Your task to perform on an android device: make emails show in primary in the gmail app Image 0: 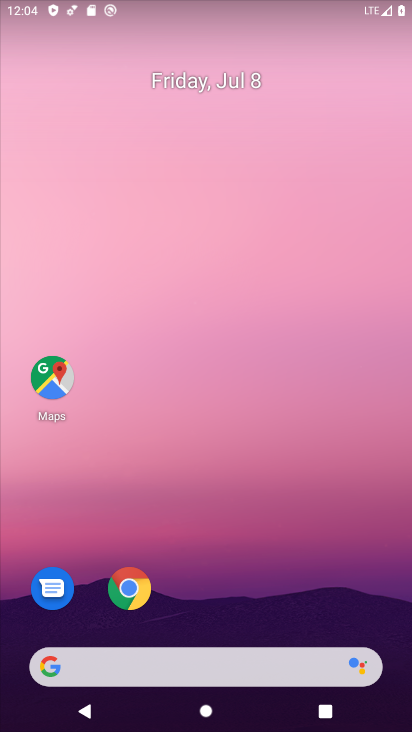
Step 0: press home button
Your task to perform on an android device: make emails show in primary in the gmail app Image 1: 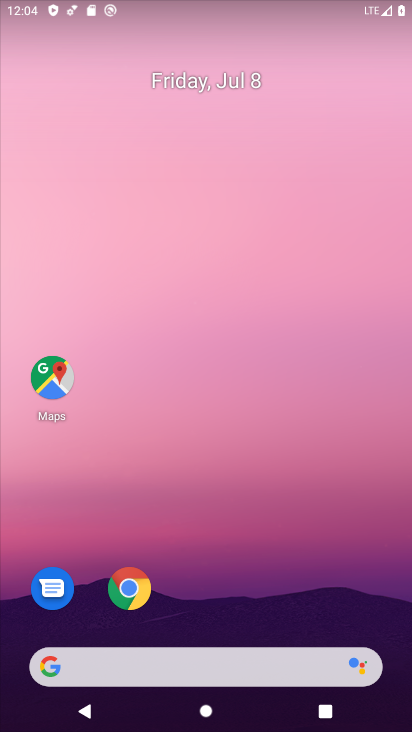
Step 1: drag from (204, 632) to (262, 127)
Your task to perform on an android device: make emails show in primary in the gmail app Image 2: 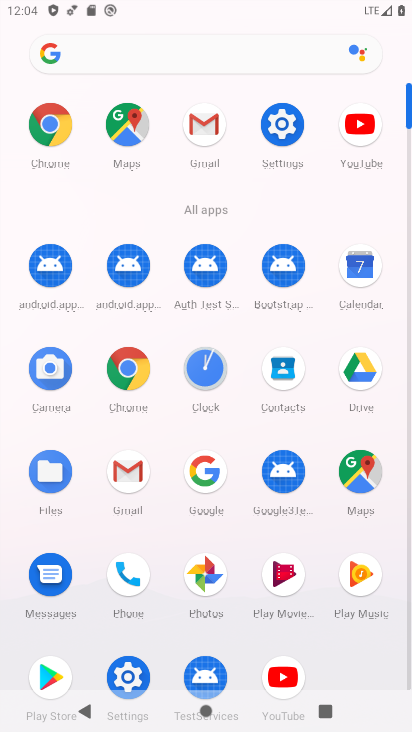
Step 2: click (125, 466)
Your task to perform on an android device: make emails show in primary in the gmail app Image 3: 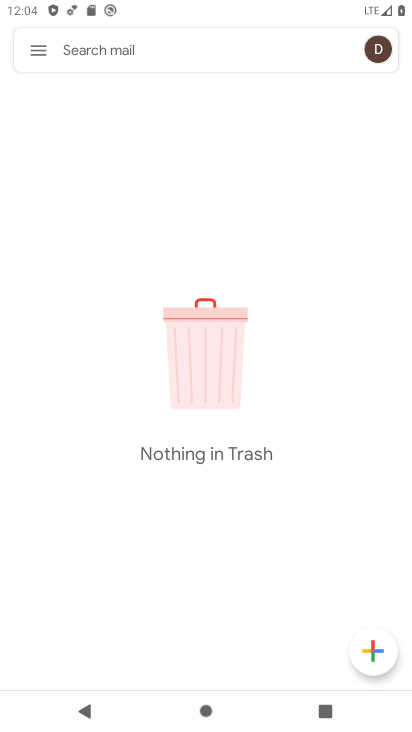
Step 3: click (39, 48)
Your task to perform on an android device: make emails show in primary in the gmail app Image 4: 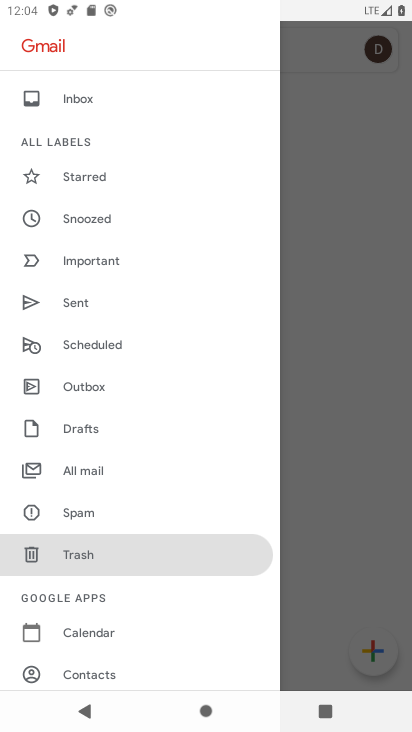
Step 4: drag from (128, 599) to (121, 23)
Your task to perform on an android device: make emails show in primary in the gmail app Image 5: 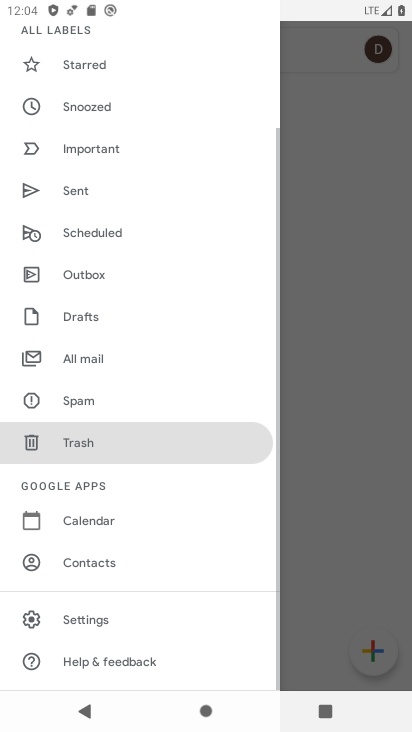
Step 5: click (124, 612)
Your task to perform on an android device: make emails show in primary in the gmail app Image 6: 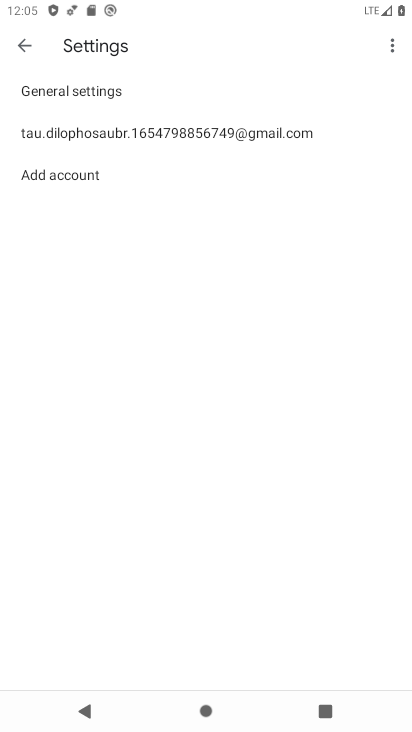
Step 6: click (116, 129)
Your task to perform on an android device: make emails show in primary in the gmail app Image 7: 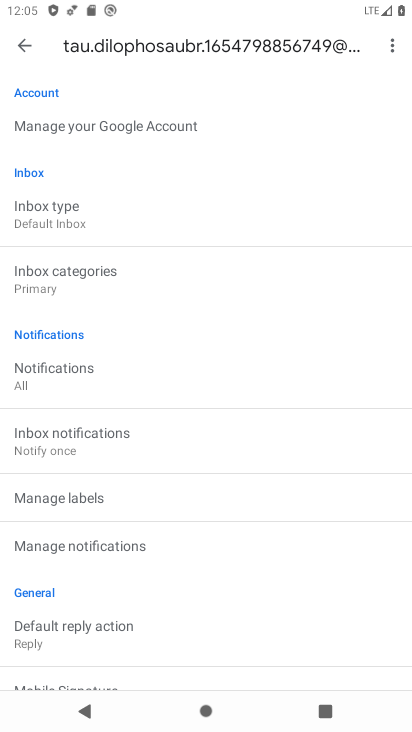
Step 7: click (97, 215)
Your task to perform on an android device: make emails show in primary in the gmail app Image 8: 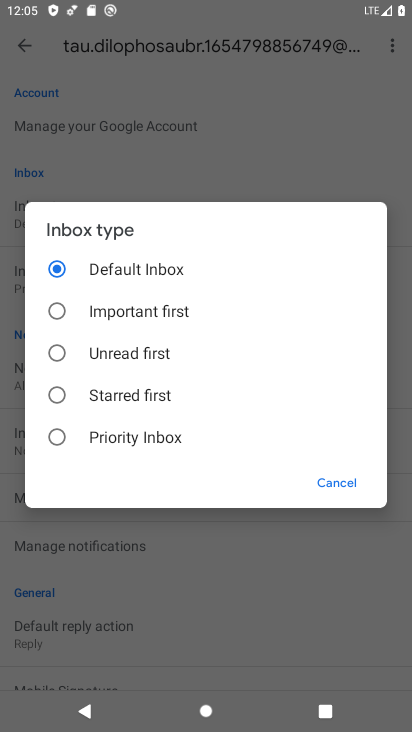
Step 8: click (73, 270)
Your task to perform on an android device: make emails show in primary in the gmail app Image 9: 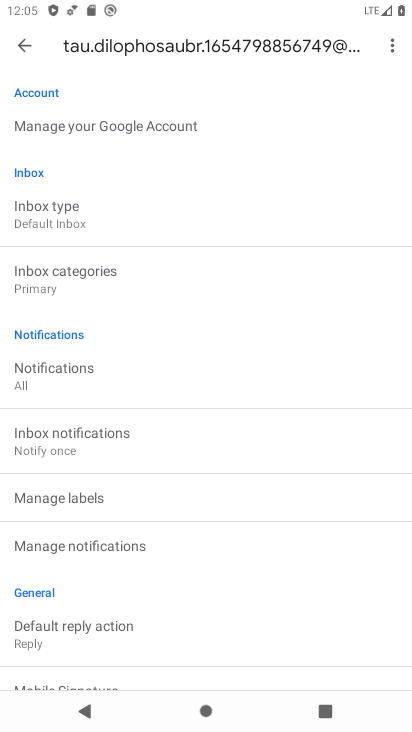
Step 9: task complete